Your task to perform on an android device: allow notifications from all sites in the chrome app Image 0: 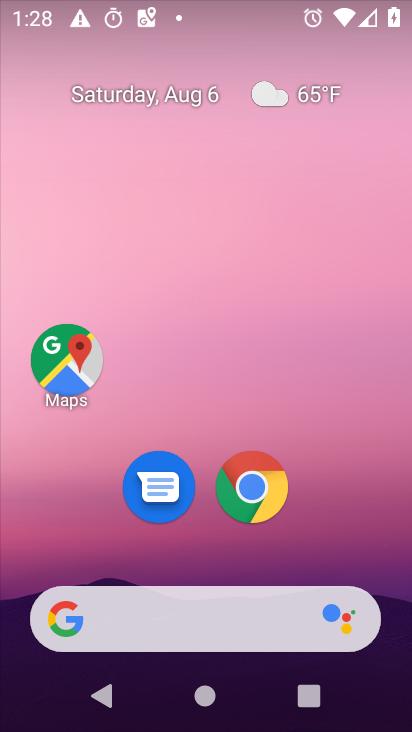
Step 0: click (256, 493)
Your task to perform on an android device: allow notifications from all sites in the chrome app Image 1: 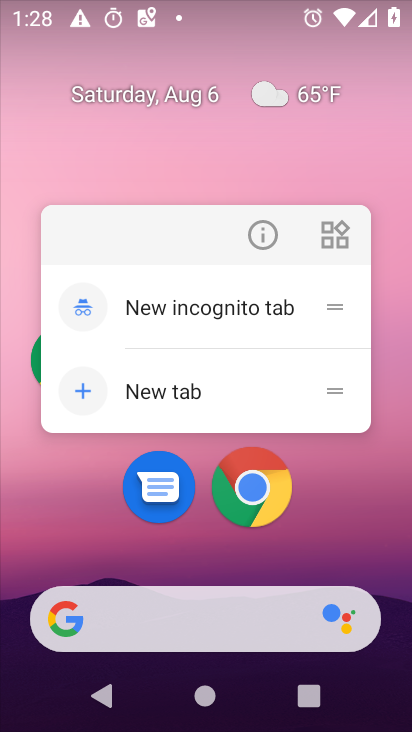
Step 1: click (256, 493)
Your task to perform on an android device: allow notifications from all sites in the chrome app Image 2: 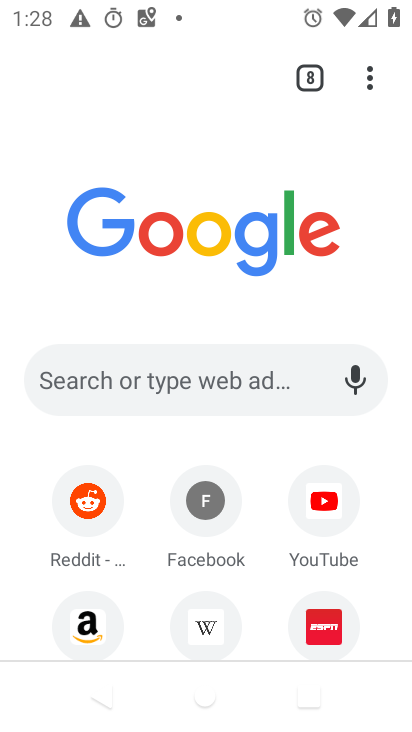
Step 2: drag from (369, 77) to (123, 540)
Your task to perform on an android device: allow notifications from all sites in the chrome app Image 3: 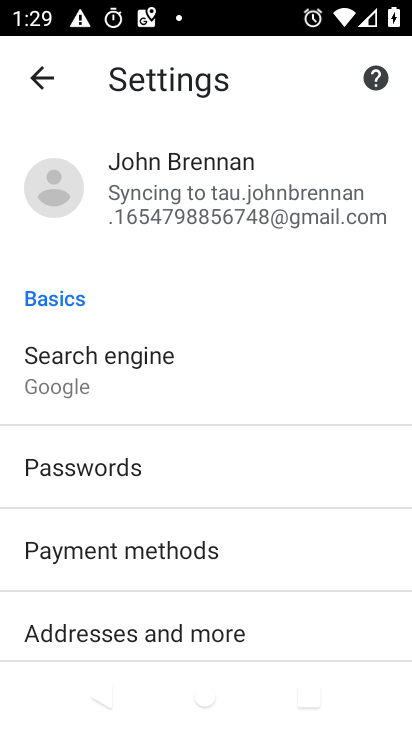
Step 3: click (205, 603)
Your task to perform on an android device: allow notifications from all sites in the chrome app Image 4: 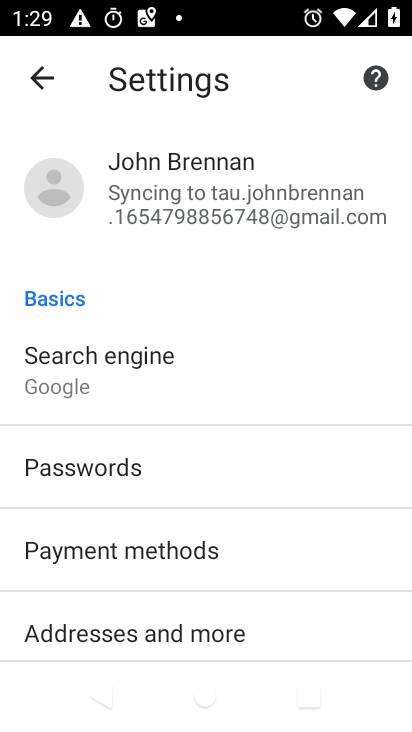
Step 4: drag from (147, 650) to (191, 228)
Your task to perform on an android device: allow notifications from all sites in the chrome app Image 5: 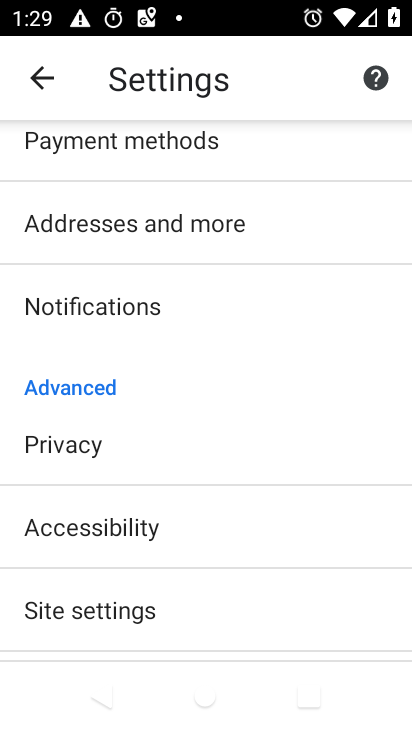
Step 5: click (133, 607)
Your task to perform on an android device: allow notifications from all sites in the chrome app Image 6: 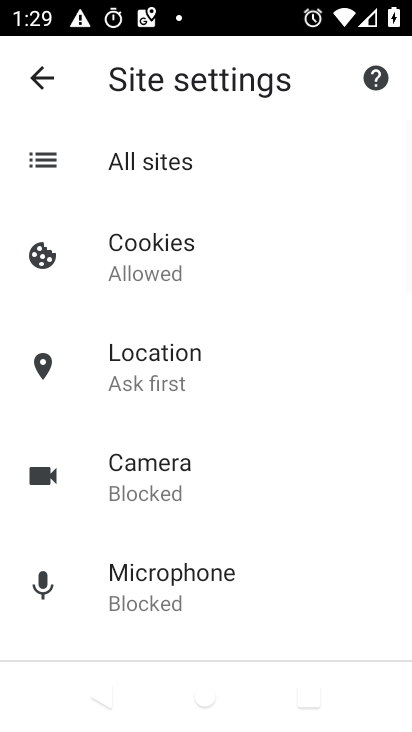
Step 6: drag from (154, 581) to (224, 220)
Your task to perform on an android device: allow notifications from all sites in the chrome app Image 7: 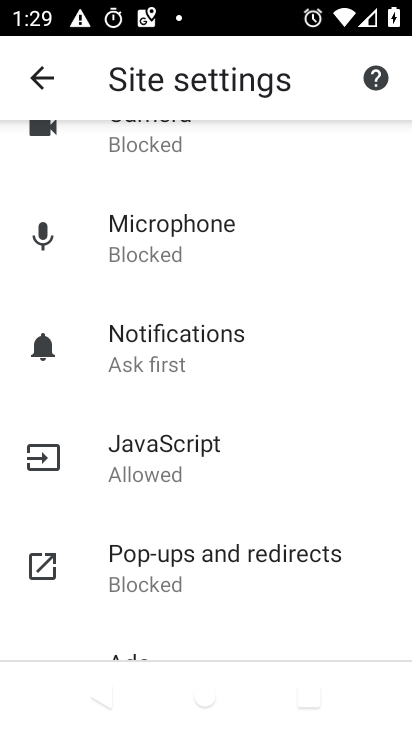
Step 7: click (198, 338)
Your task to perform on an android device: allow notifications from all sites in the chrome app Image 8: 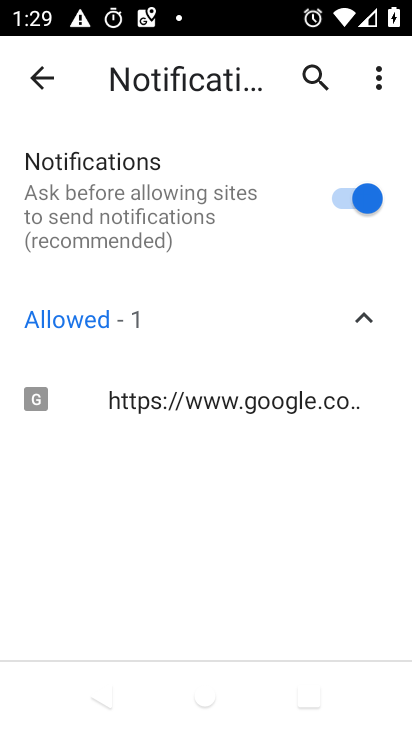
Step 8: task complete